Your task to perform on an android device: Go to notification settings Image 0: 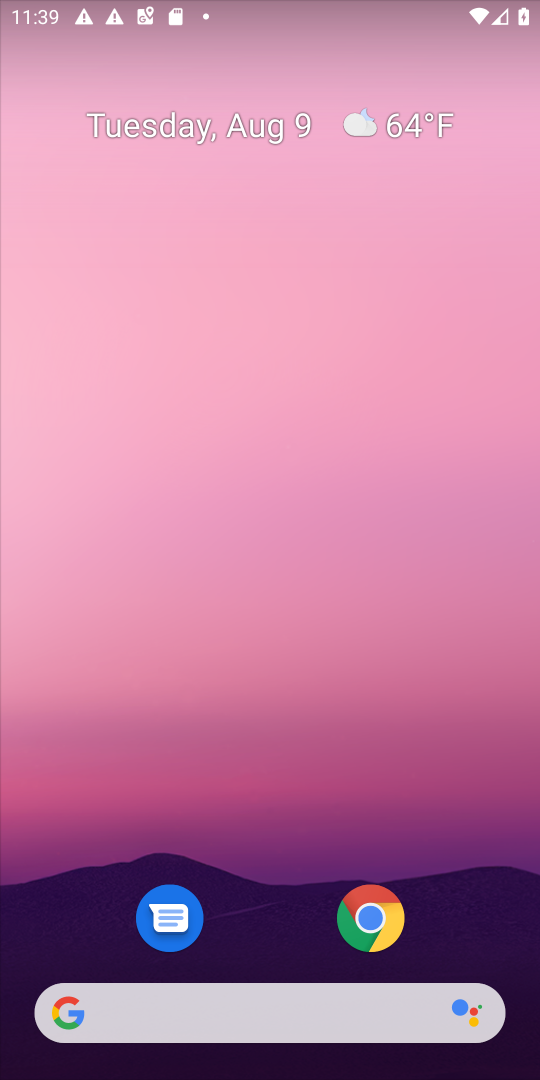
Step 0: drag from (288, 911) to (237, 72)
Your task to perform on an android device: Go to notification settings Image 1: 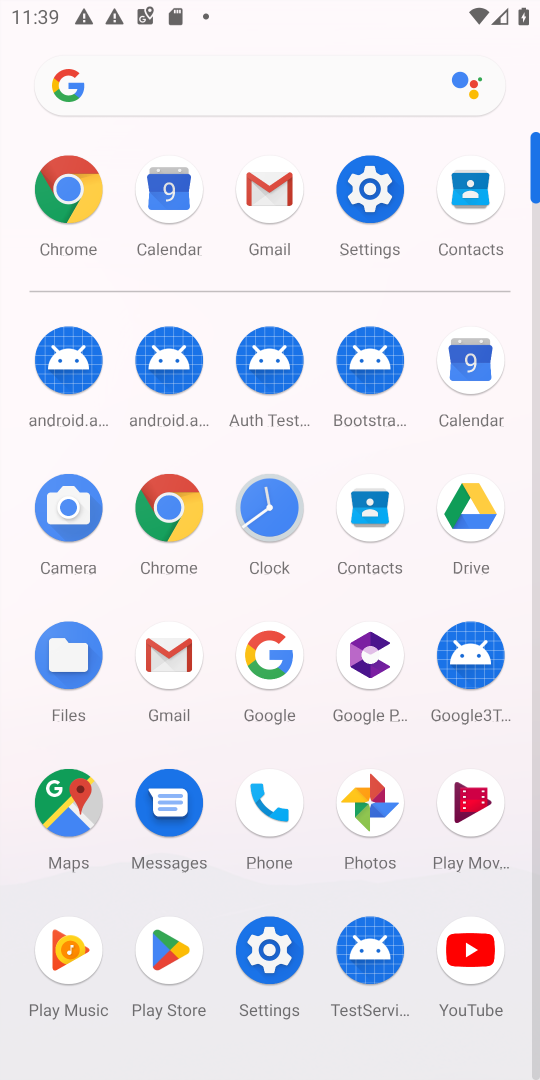
Step 1: click (275, 941)
Your task to perform on an android device: Go to notification settings Image 2: 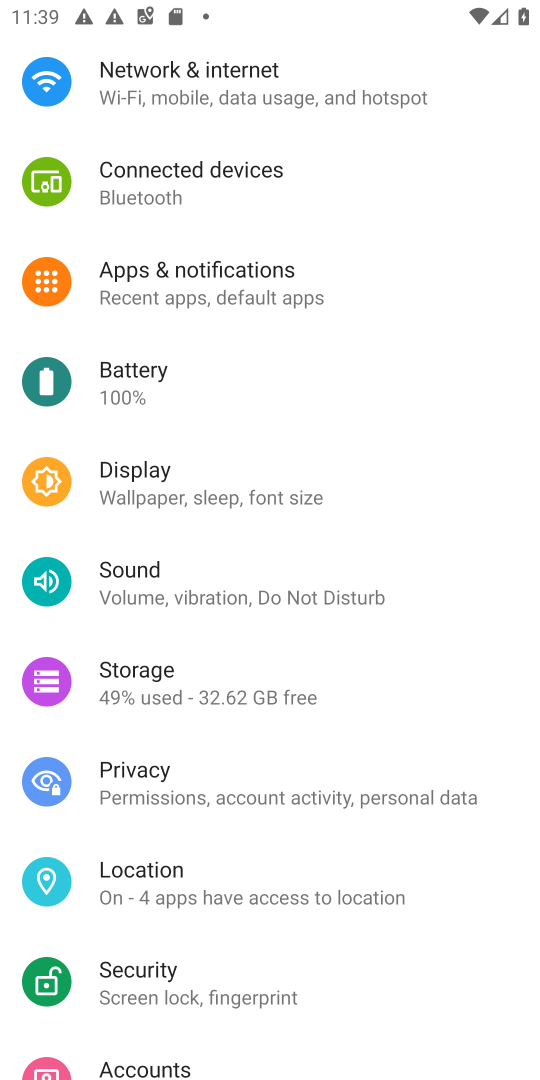
Step 2: click (167, 288)
Your task to perform on an android device: Go to notification settings Image 3: 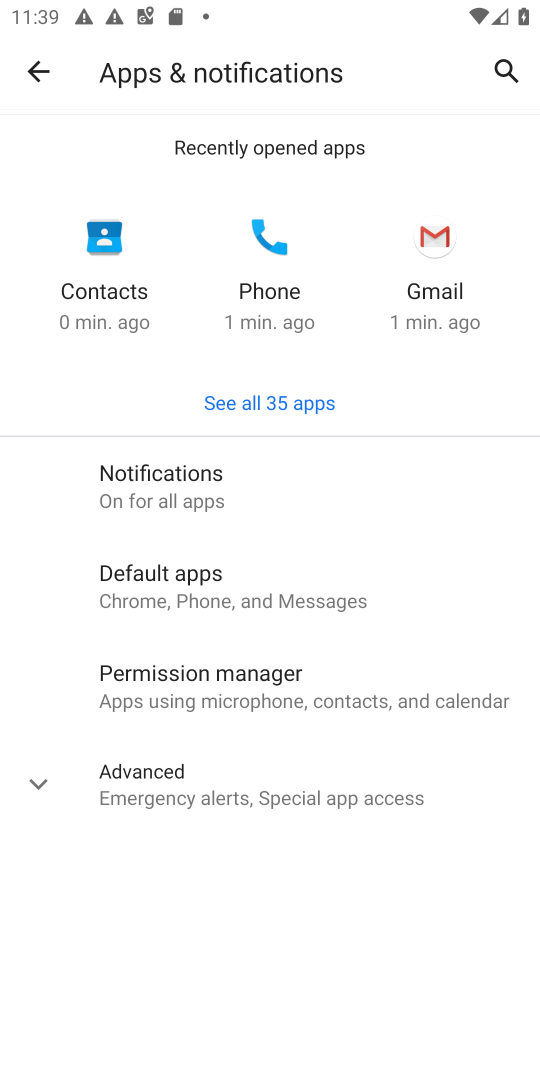
Step 3: click (201, 479)
Your task to perform on an android device: Go to notification settings Image 4: 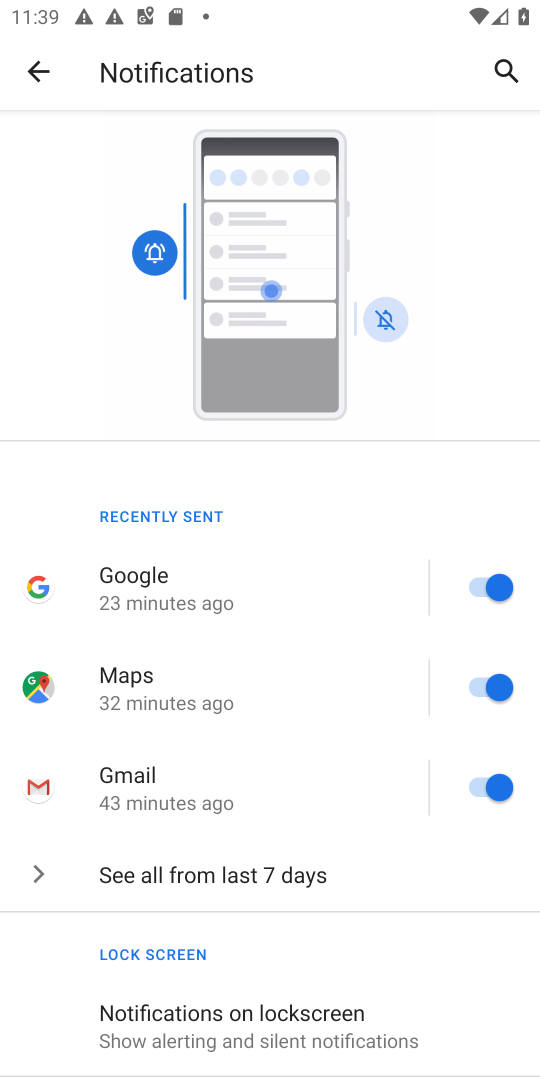
Step 4: task complete